Your task to perform on an android device: Open calendar and show me the first week of next month Image 0: 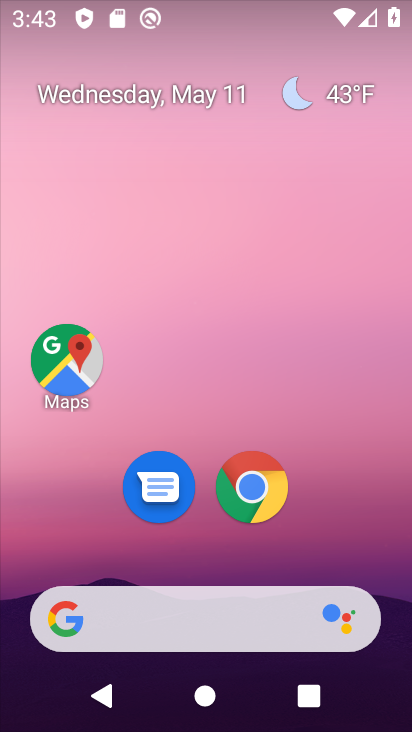
Step 0: drag from (322, 538) to (326, 249)
Your task to perform on an android device: Open calendar and show me the first week of next month Image 1: 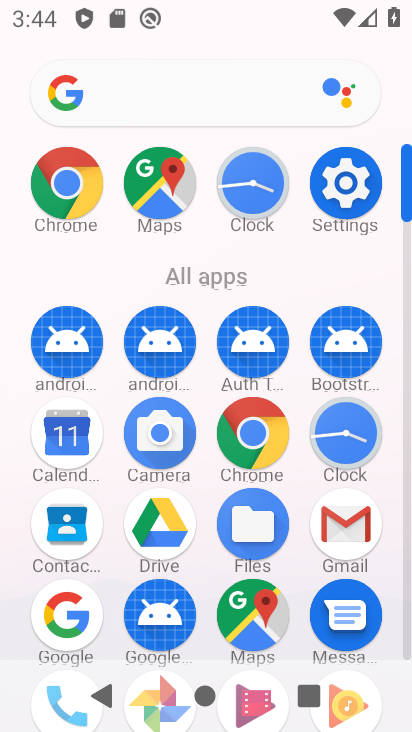
Step 1: click (76, 474)
Your task to perform on an android device: Open calendar and show me the first week of next month Image 2: 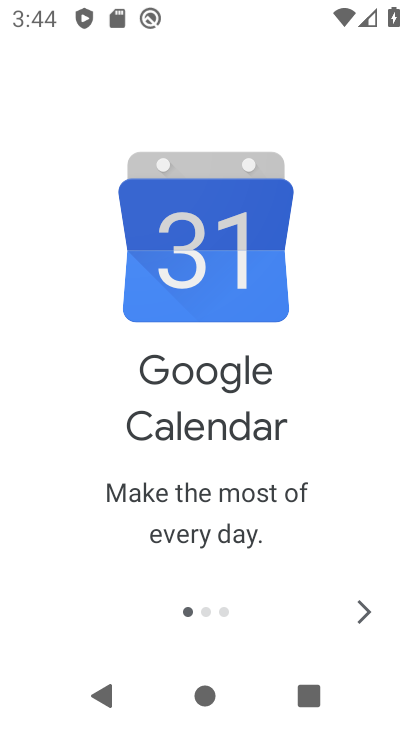
Step 2: click (355, 620)
Your task to perform on an android device: Open calendar and show me the first week of next month Image 3: 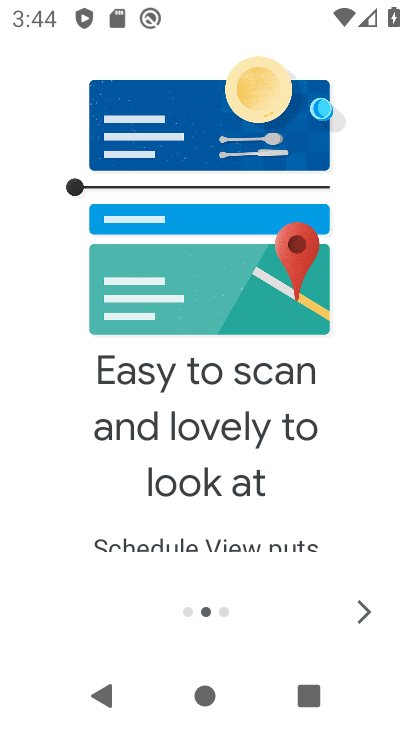
Step 3: click (355, 620)
Your task to perform on an android device: Open calendar and show me the first week of next month Image 4: 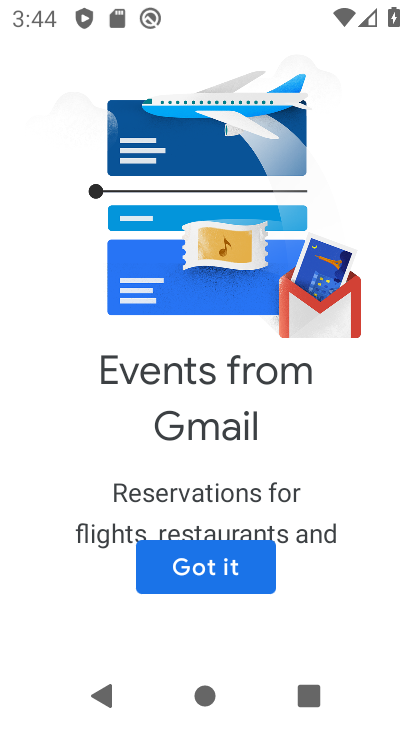
Step 4: click (226, 572)
Your task to perform on an android device: Open calendar and show me the first week of next month Image 5: 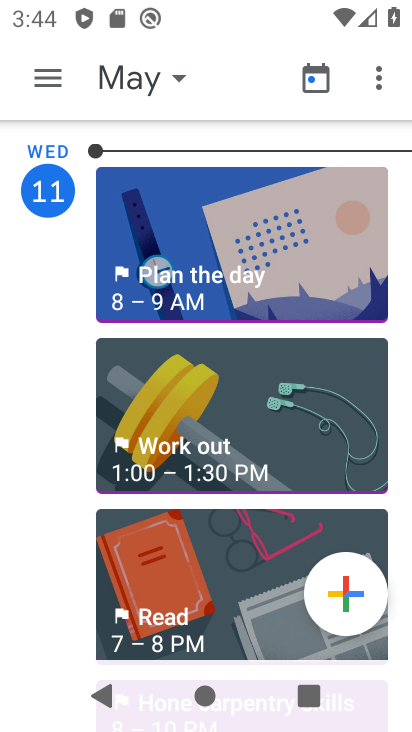
Step 5: click (51, 81)
Your task to perform on an android device: Open calendar and show me the first week of next month Image 6: 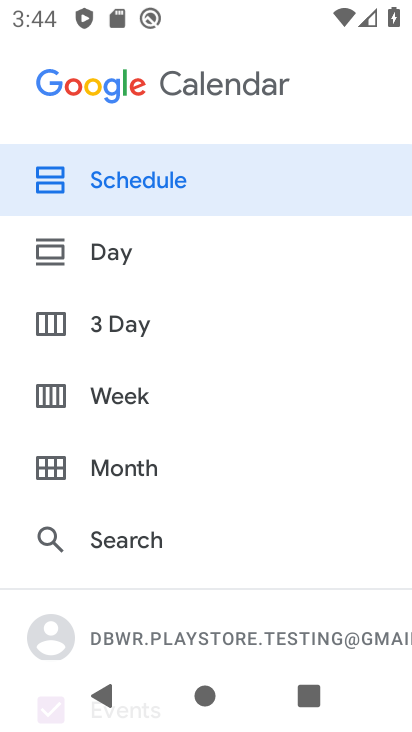
Step 6: click (97, 377)
Your task to perform on an android device: Open calendar and show me the first week of next month Image 7: 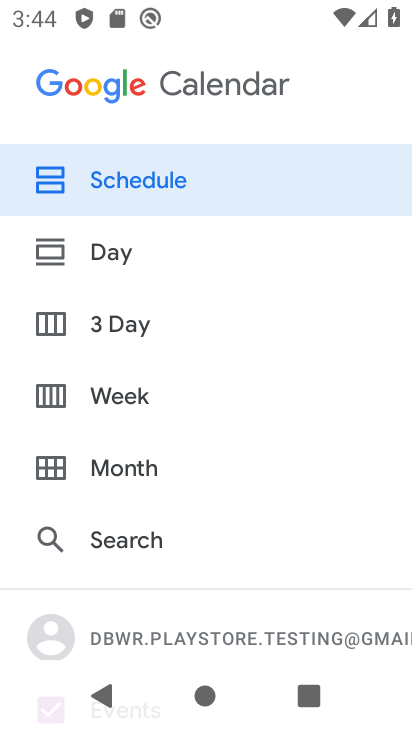
Step 7: click (109, 393)
Your task to perform on an android device: Open calendar and show me the first week of next month Image 8: 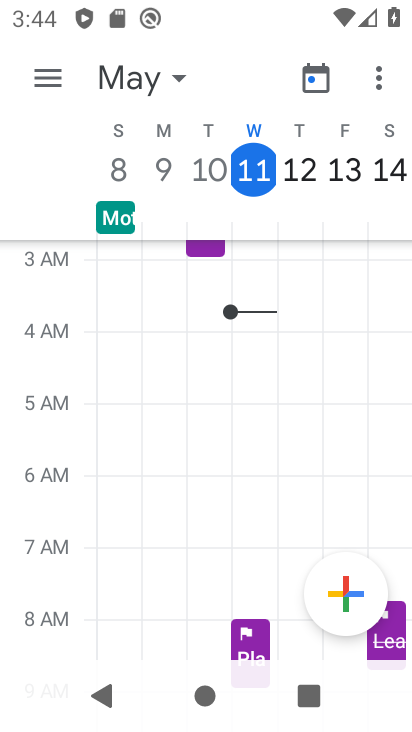
Step 8: click (118, 86)
Your task to perform on an android device: Open calendar and show me the first week of next month Image 9: 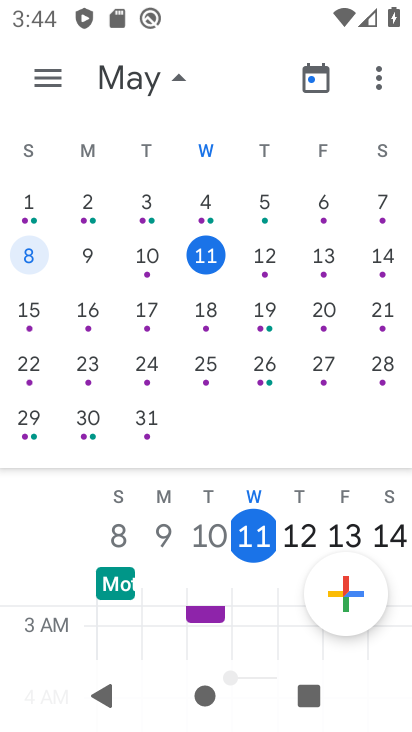
Step 9: drag from (357, 302) to (16, 321)
Your task to perform on an android device: Open calendar and show me the first week of next month Image 10: 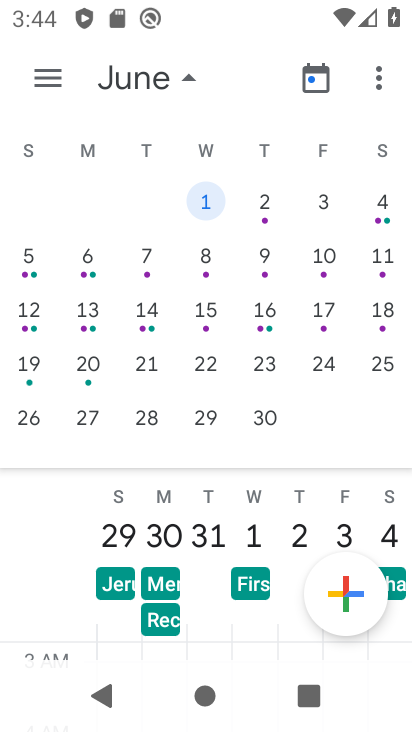
Step 10: click (32, 261)
Your task to perform on an android device: Open calendar and show me the first week of next month Image 11: 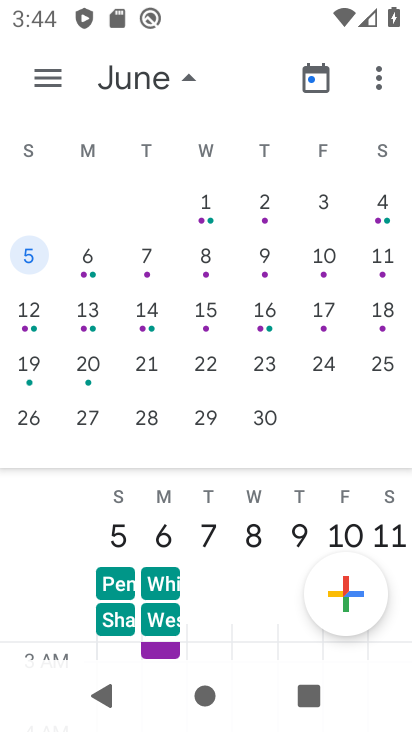
Step 11: drag from (234, 575) to (284, 321)
Your task to perform on an android device: Open calendar and show me the first week of next month Image 12: 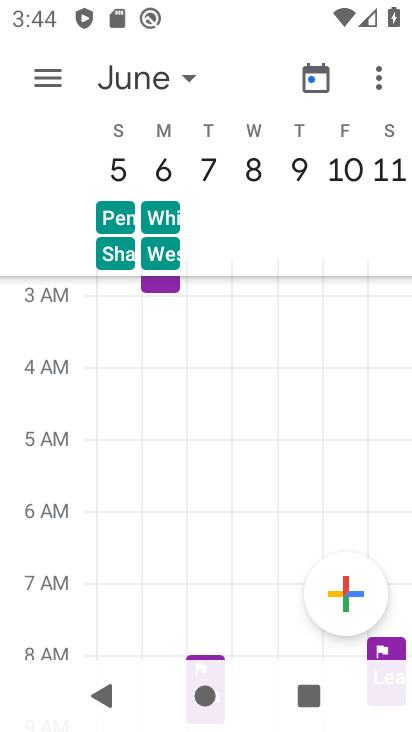
Step 12: drag from (221, 482) to (267, 257)
Your task to perform on an android device: Open calendar and show me the first week of next month Image 13: 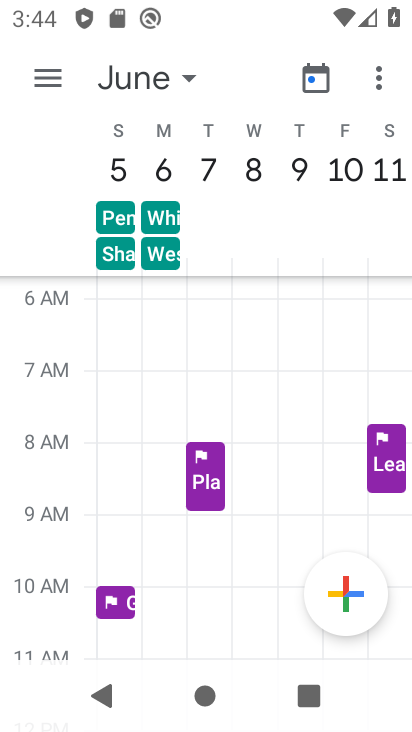
Step 13: drag from (266, 498) to (295, 201)
Your task to perform on an android device: Open calendar and show me the first week of next month Image 14: 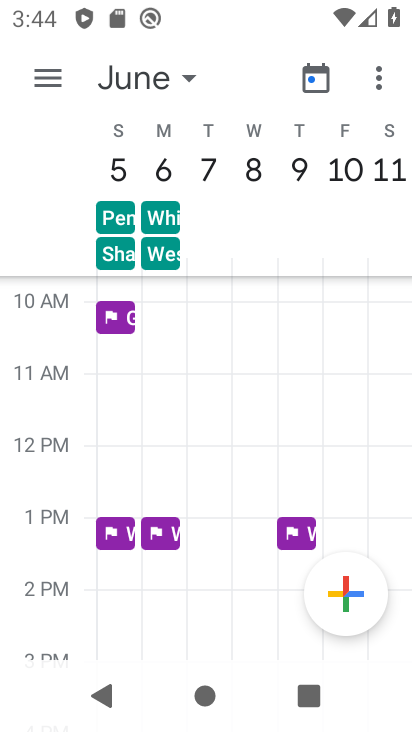
Step 14: drag from (237, 310) to (247, 175)
Your task to perform on an android device: Open calendar and show me the first week of next month Image 15: 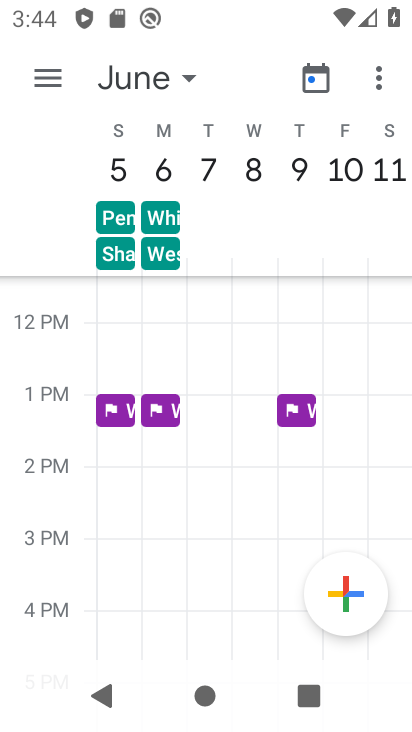
Step 15: click (262, 218)
Your task to perform on an android device: Open calendar and show me the first week of next month Image 16: 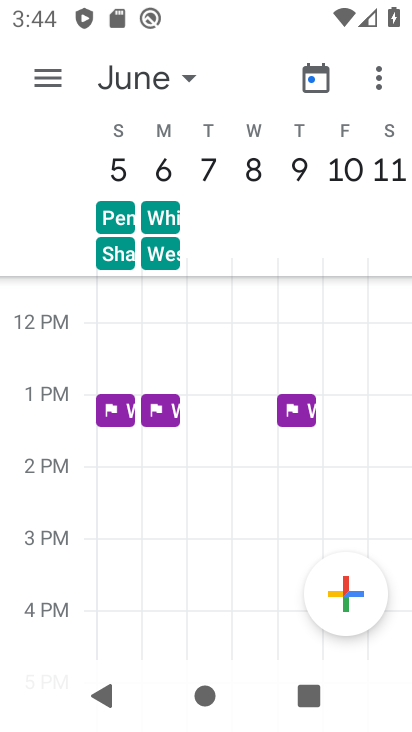
Step 16: task complete